Your task to perform on an android device: Open network settings Image 0: 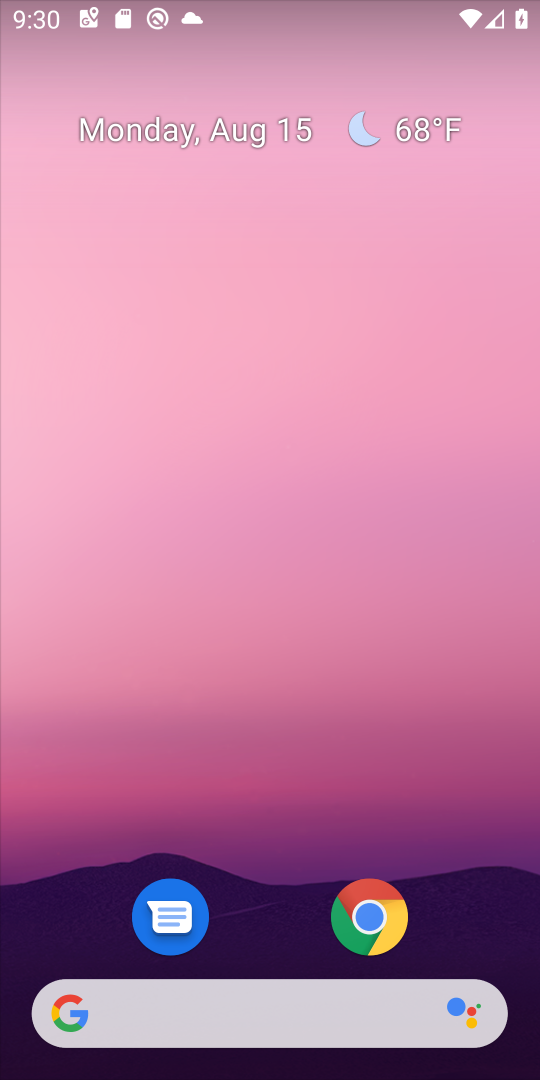
Step 0: drag from (294, 828) to (359, 0)
Your task to perform on an android device: Open network settings Image 1: 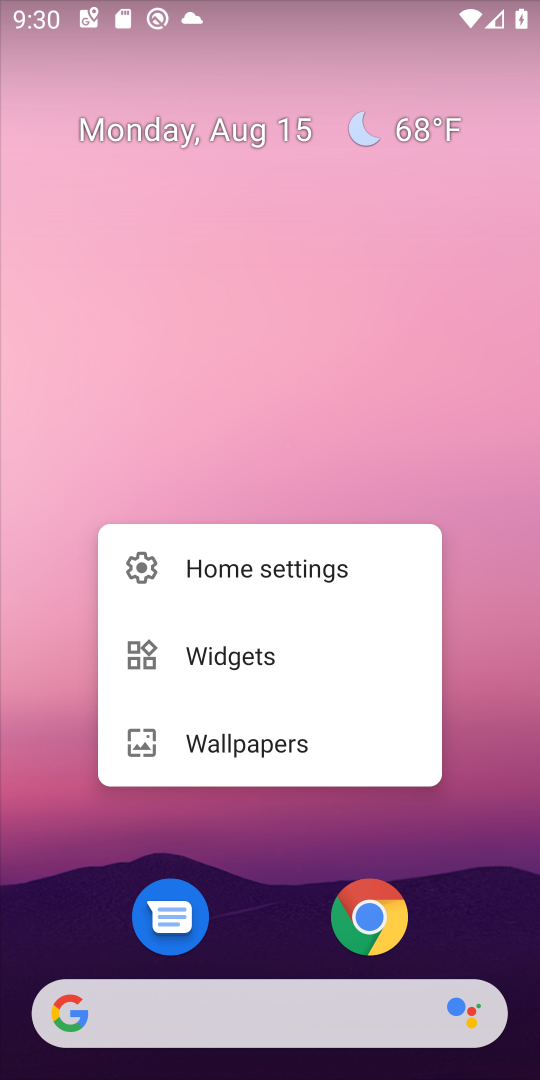
Step 1: drag from (251, 920) to (267, 37)
Your task to perform on an android device: Open network settings Image 2: 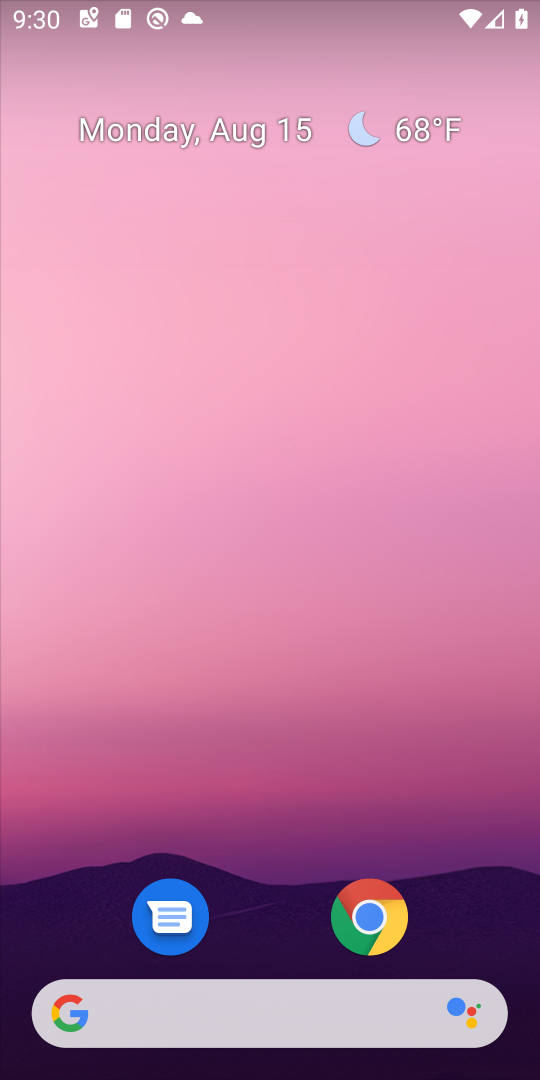
Step 2: drag from (296, 823) to (312, 6)
Your task to perform on an android device: Open network settings Image 3: 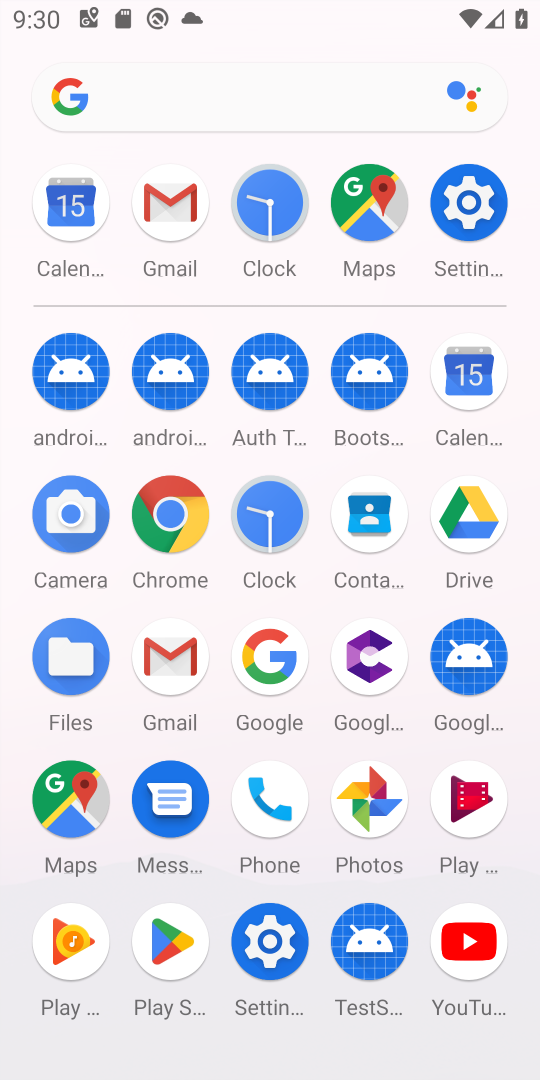
Step 3: click (475, 207)
Your task to perform on an android device: Open network settings Image 4: 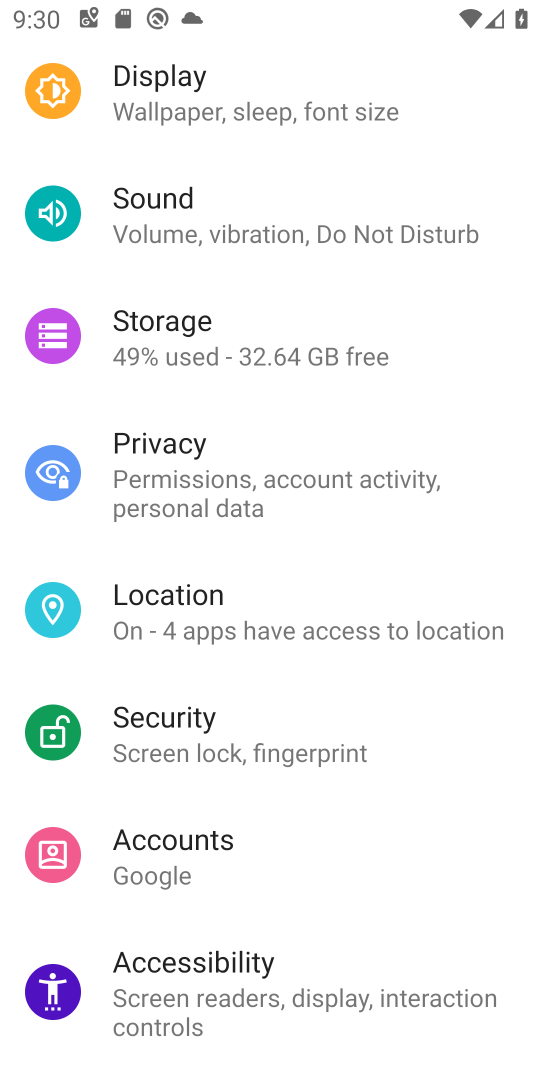
Step 4: drag from (315, 213) to (320, 757)
Your task to perform on an android device: Open network settings Image 5: 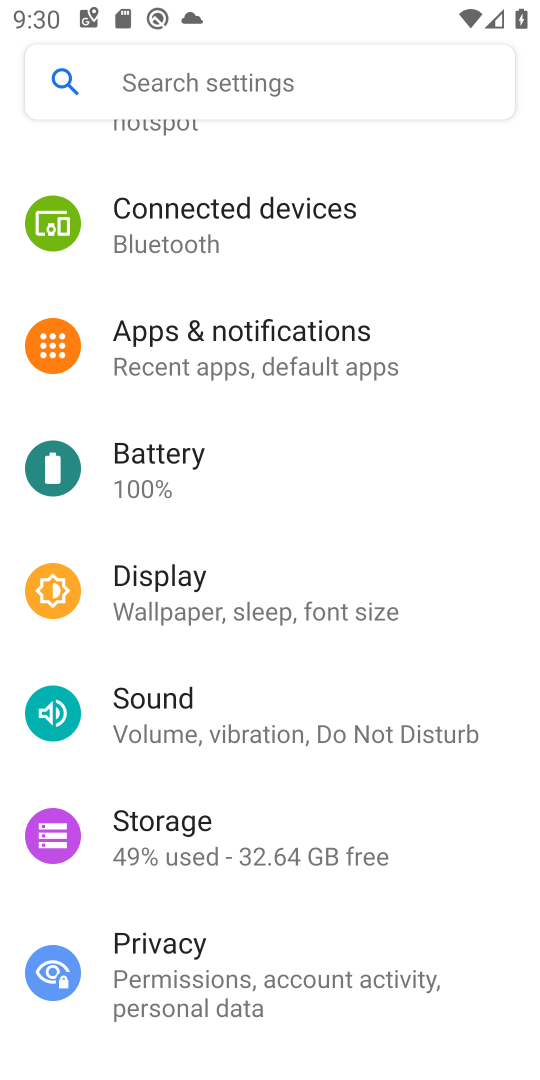
Step 5: drag from (322, 413) to (336, 847)
Your task to perform on an android device: Open network settings Image 6: 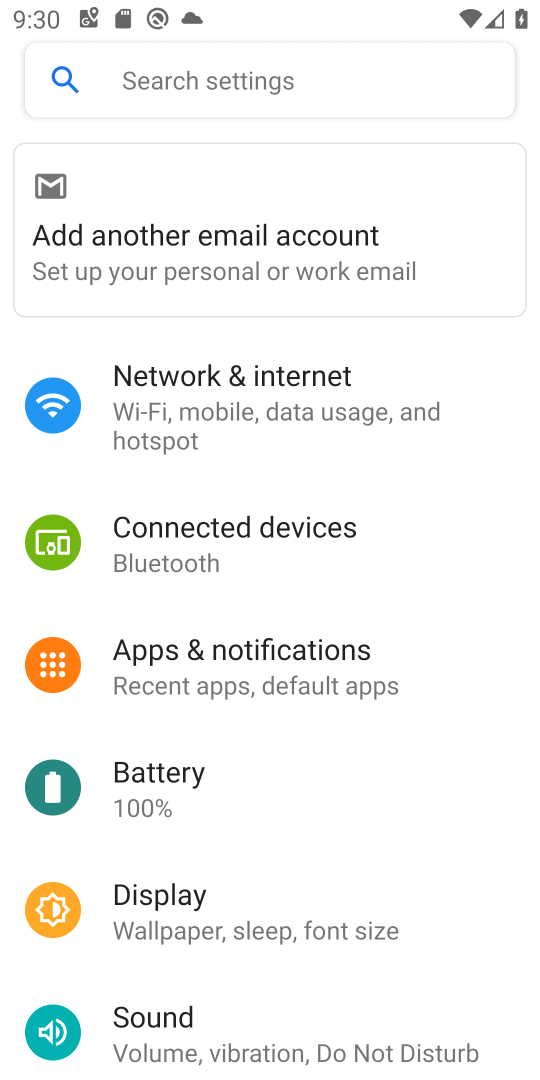
Step 6: click (333, 392)
Your task to perform on an android device: Open network settings Image 7: 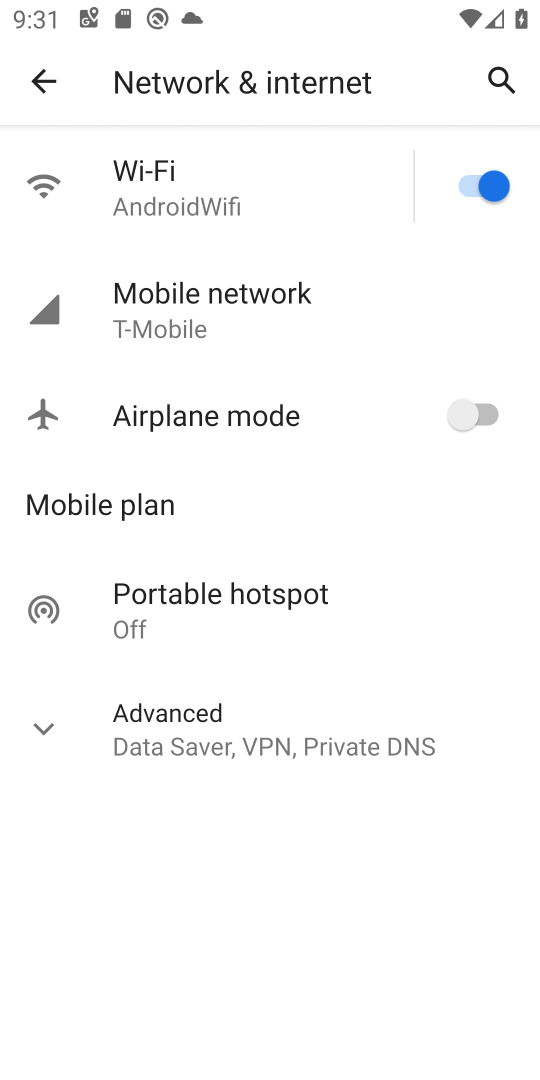
Step 7: task complete